Your task to perform on an android device: Open Yahoo.com Image 0: 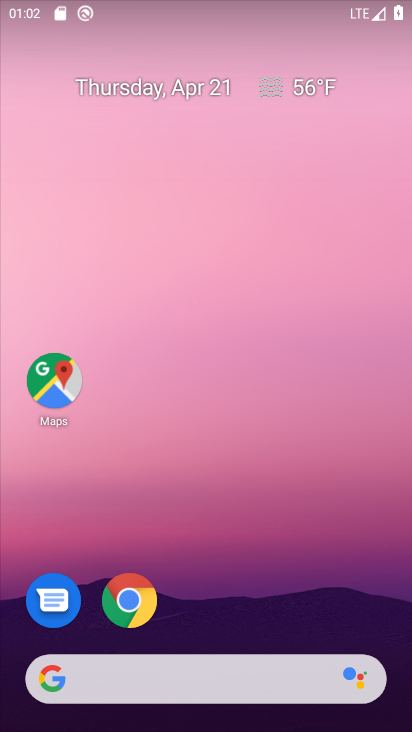
Step 0: click (268, 677)
Your task to perform on an android device: Open Yahoo.com Image 1: 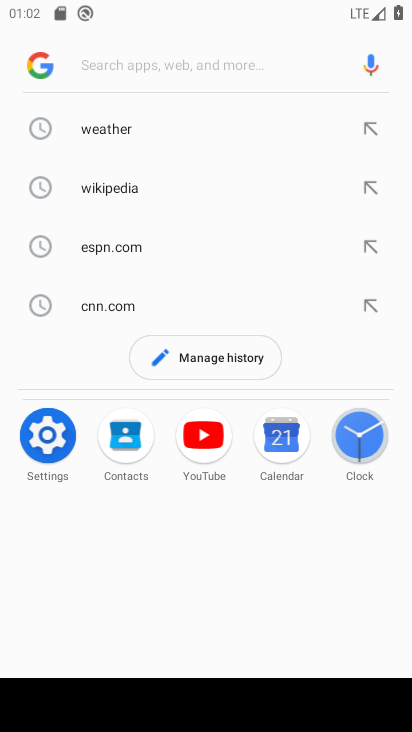
Step 1: type "yahoo.com"
Your task to perform on an android device: Open Yahoo.com Image 2: 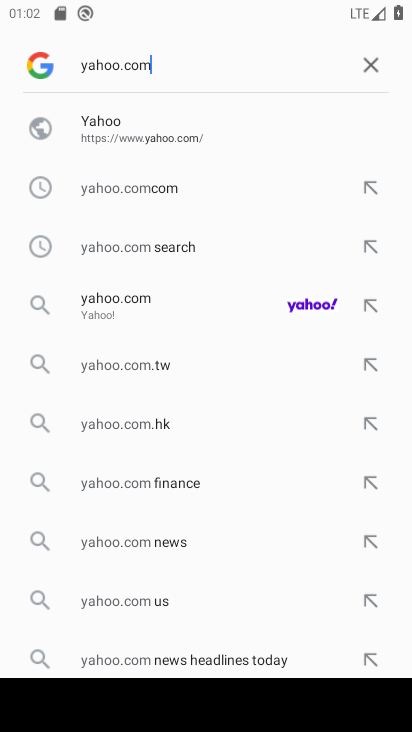
Step 2: click (161, 299)
Your task to perform on an android device: Open Yahoo.com Image 3: 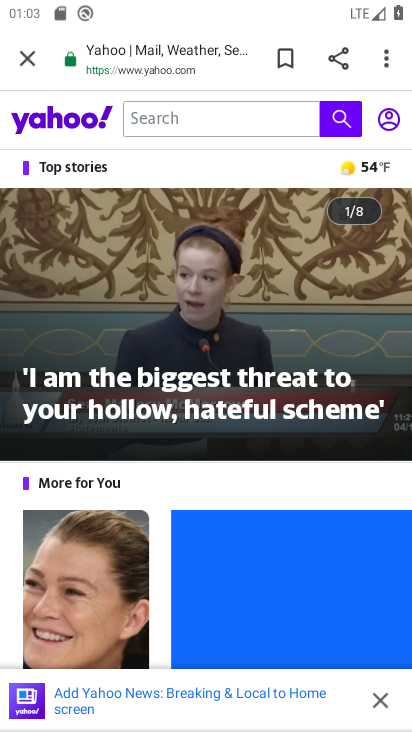
Step 3: task complete